Your task to perform on an android device: turn on location history Image 0: 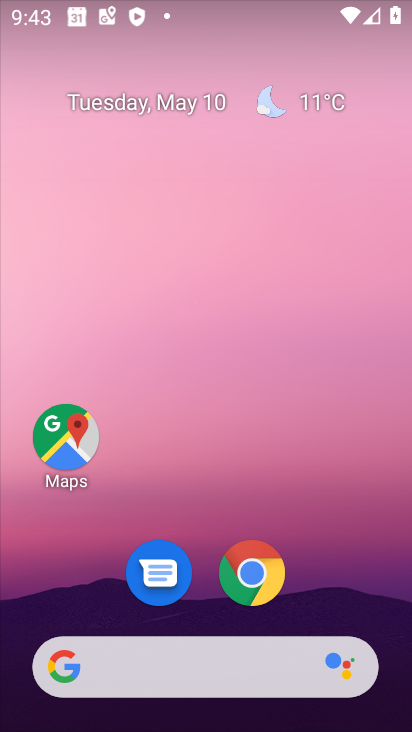
Step 0: click (63, 441)
Your task to perform on an android device: turn on location history Image 1: 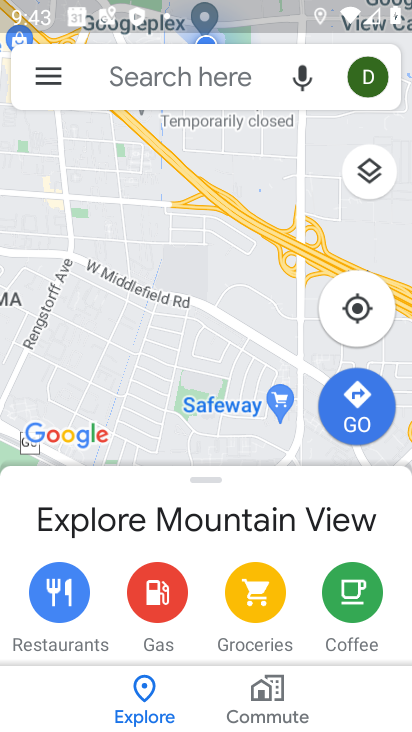
Step 1: click (45, 81)
Your task to perform on an android device: turn on location history Image 2: 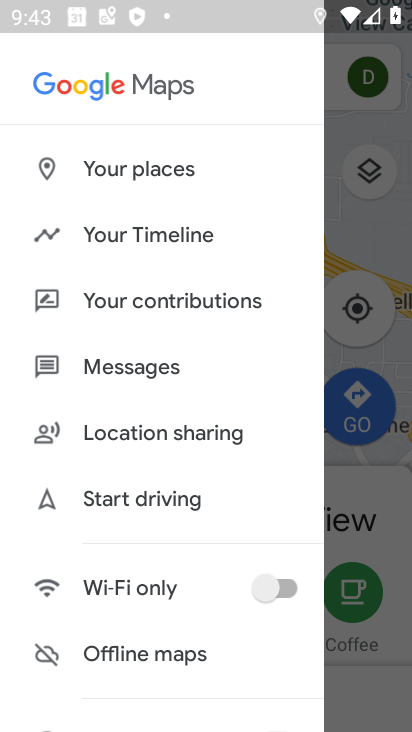
Step 2: click (140, 244)
Your task to perform on an android device: turn on location history Image 3: 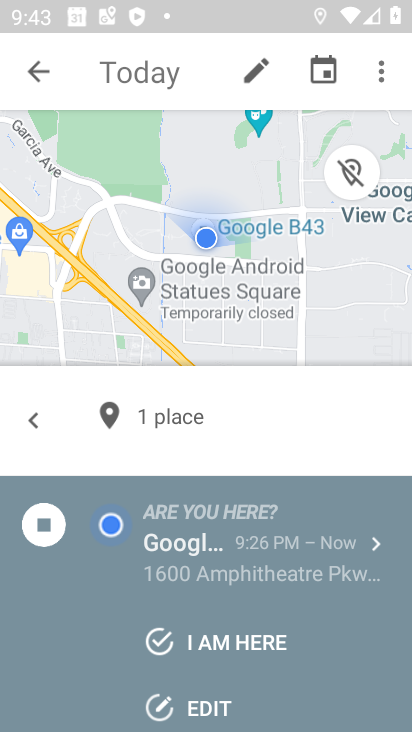
Step 3: click (382, 72)
Your task to perform on an android device: turn on location history Image 4: 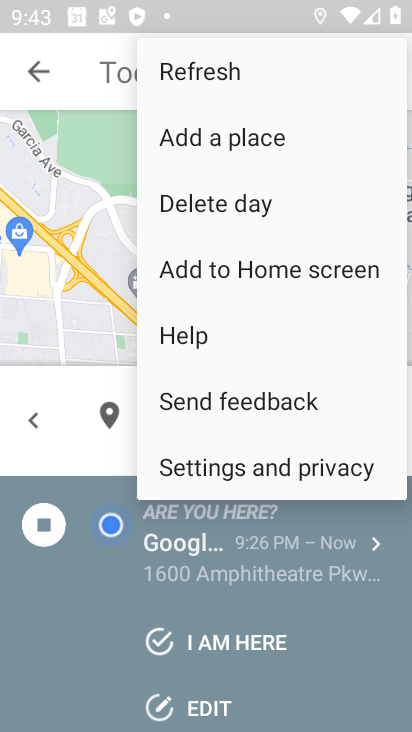
Step 4: click (204, 467)
Your task to perform on an android device: turn on location history Image 5: 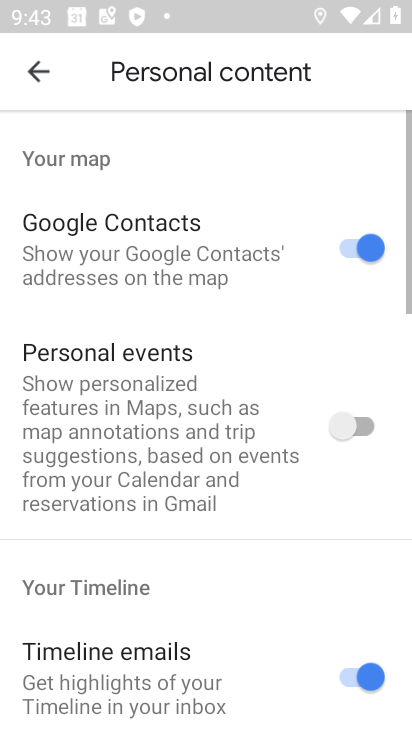
Step 5: drag from (136, 572) to (164, 32)
Your task to perform on an android device: turn on location history Image 6: 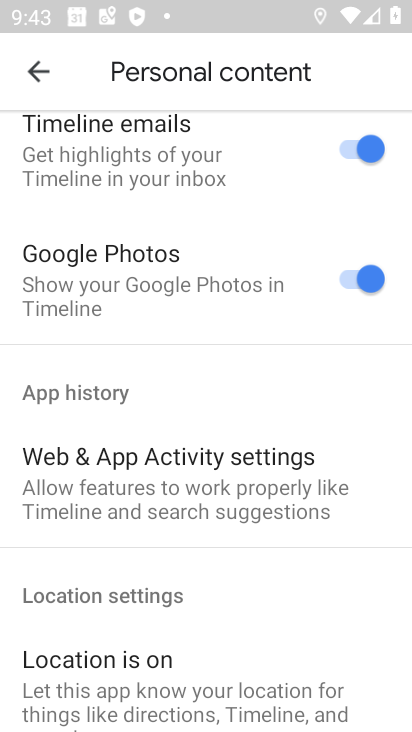
Step 6: drag from (83, 423) to (125, 97)
Your task to perform on an android device: turn on location history Image 7: 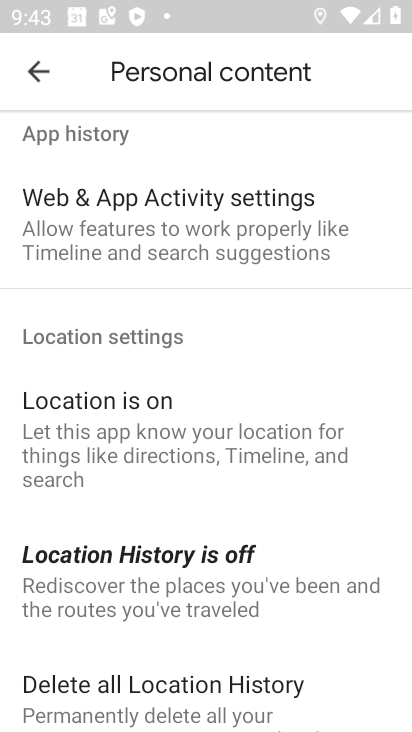
Step 7: drag from (75, 594) to (79, 290)
Your task to perform on an android device: turn on location history Image 8: 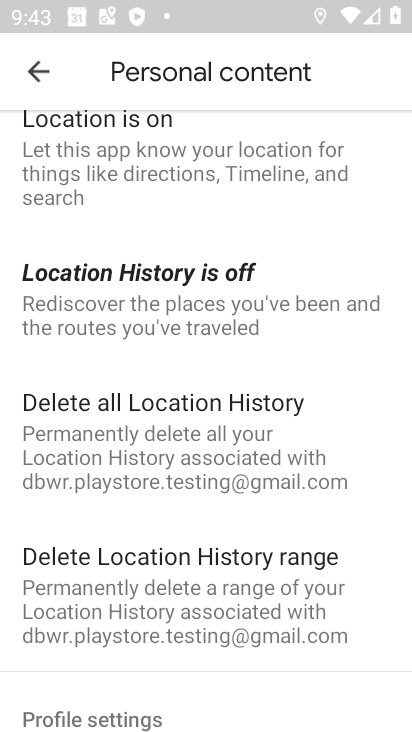
Step 8: click (77, 293)
Your task to perform on an android device: turn on location history Image 9: 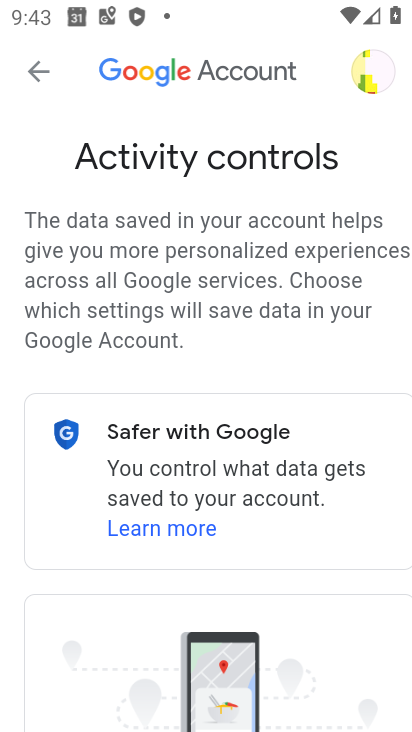
Step 9: task complete